Your task to perform on an android device: turn off javascript in the chrome app Image 0: 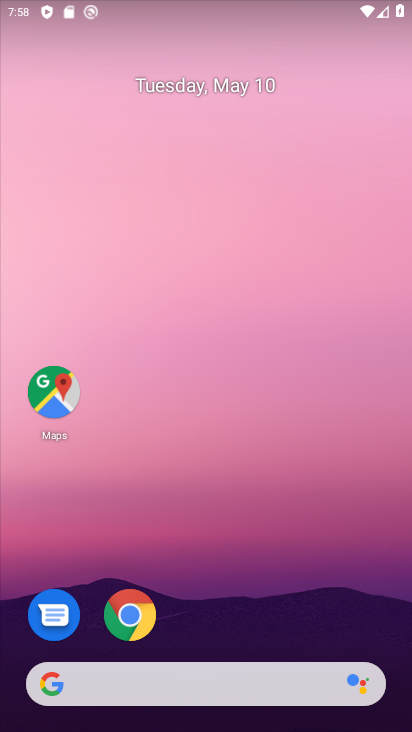
Step 0: click (261, 225)
Your task to perform on an android device: turn off javascript in the chrome app Image 1: 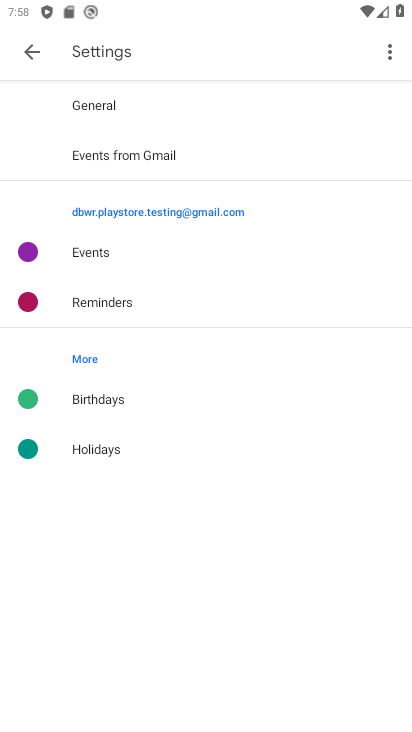
Step 1: press home button
Your task to perform on an android device: turn off javascript in the chrome app Image 2: 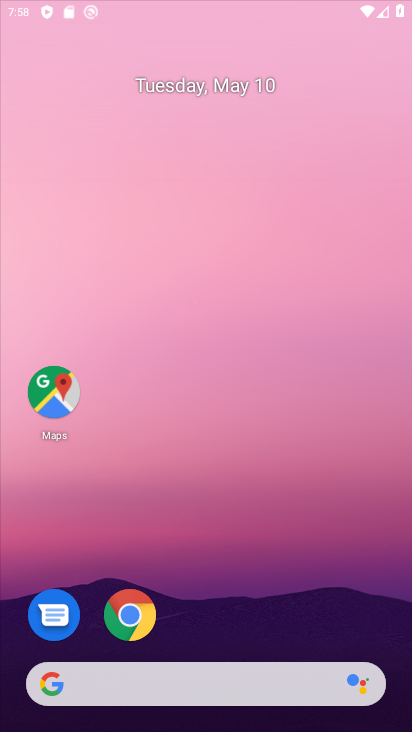
Step 2: drag from (226, 610) to (280, 154)
Your task to perform on an android device: turn off javascript in the chrome app Image 3: 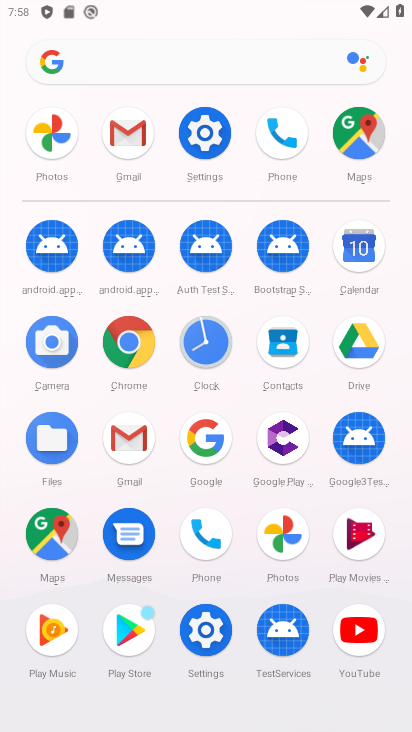
Step 3: click (126, 340)
Your task to perform on an android device: turn off javascript in the chrome app Image 4: 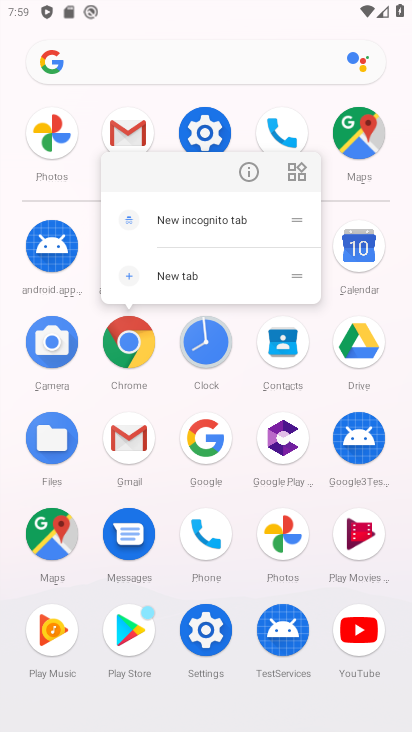
Step 4: click (250, 172)
Your task to perform on an android device: turn off javascript in the chrome app Image 5: 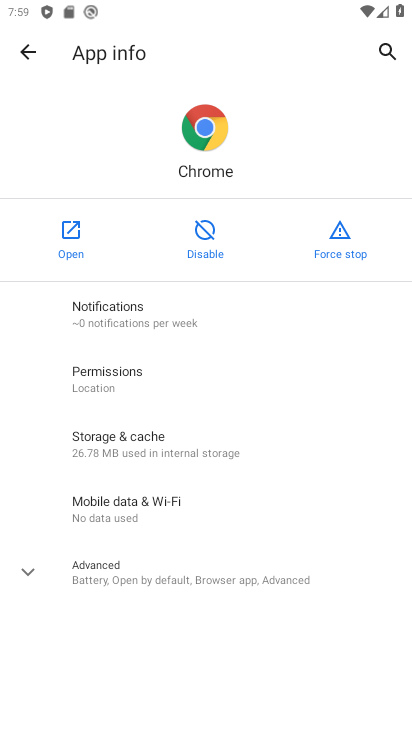
Step 5: click (65, 232)
Your task to perform on an android device: turn off javascript in the chrome app Image 6: 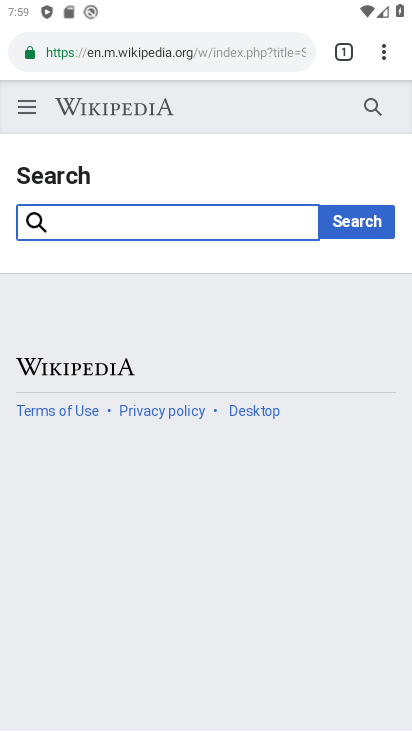
Step 6: drag from (182, 347) to (239, 160)
Your task to perform on an android device: turn off javascript in the chrome app Image 7: 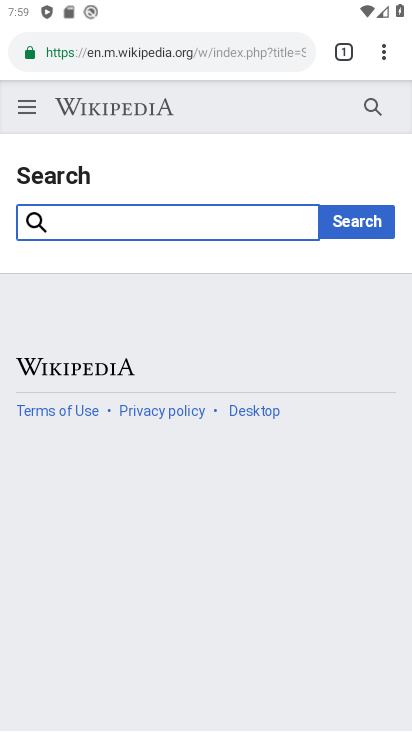
Step 7: press home button
Your task to perform on an android device: turn off javascript in the chrome app Image 8: 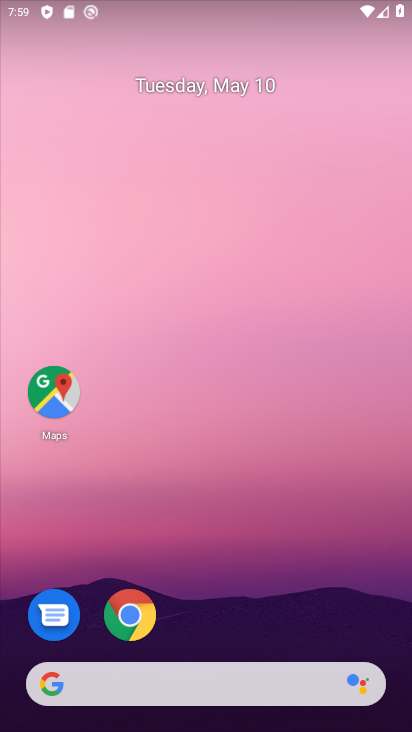
Step 8: click (128, 609)
Your task to perform on an android device: turn off javascript in the chrome app Image 9: 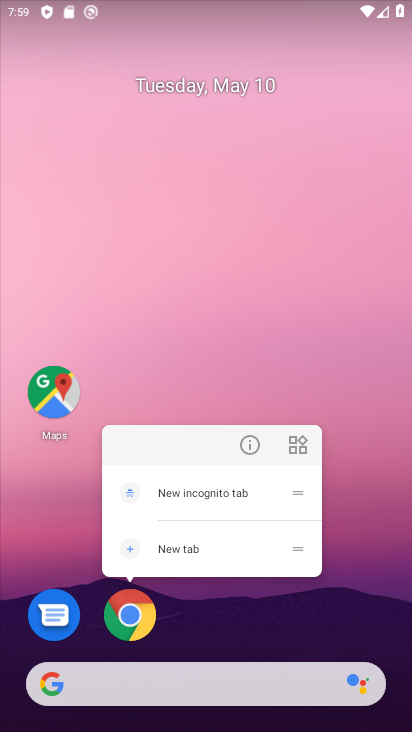
Step 9: click (265, 439)
Your task to perform on an android device: turn off javascript in the chrome app Image 10: 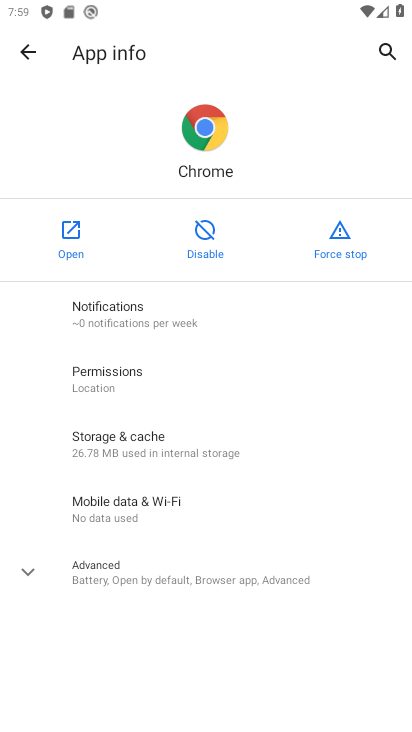
Step 10: click (47, 237)
Your task to perform on an android device: turn off javascript in the chrome app Image 11: 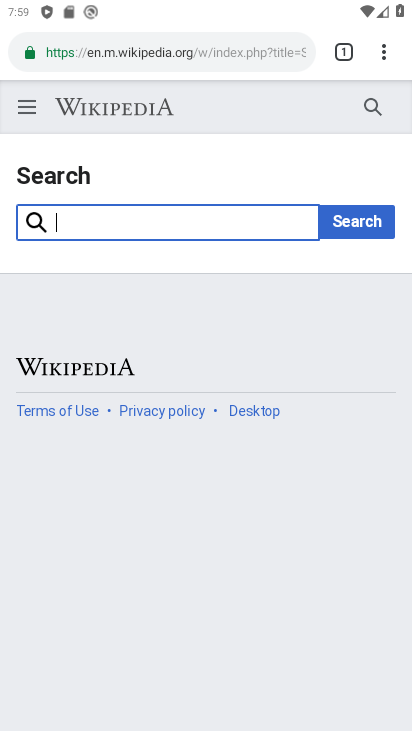
Step 11: drag from (391, 60) to (233, 626)
Your task to perform on an android device: turn off javascript in the chrome app Image 12: 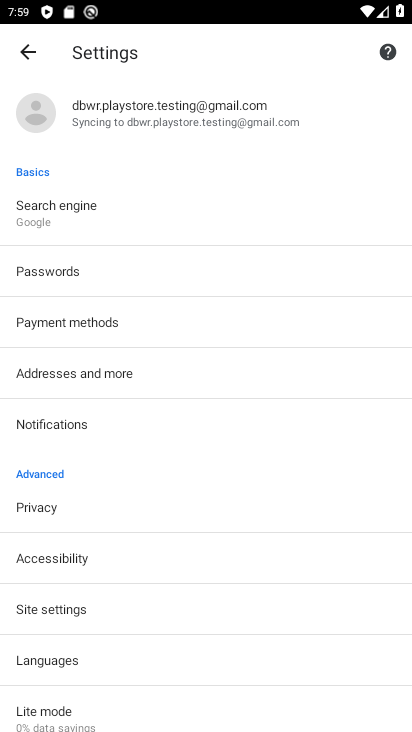
Step 12: click (39, 609)
Your task to perform on an android device: turn off javascript in the chrome app Image 13: 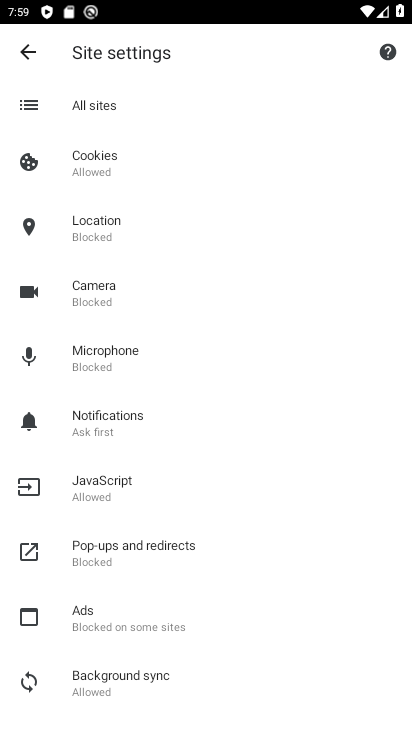
Step 13: click (154, 476)
Your task to perform on an android device: turn off javascript in the chrome app Image 14: 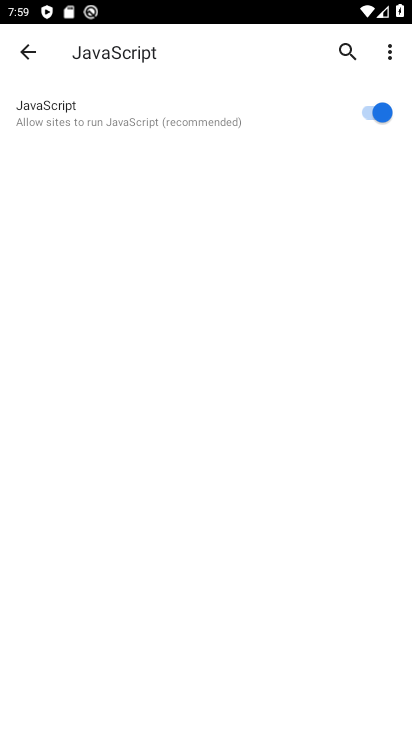
Step 14: click (371, 101)
Your task to perform on an android device: turn off javascript in the chrome app Image 15: 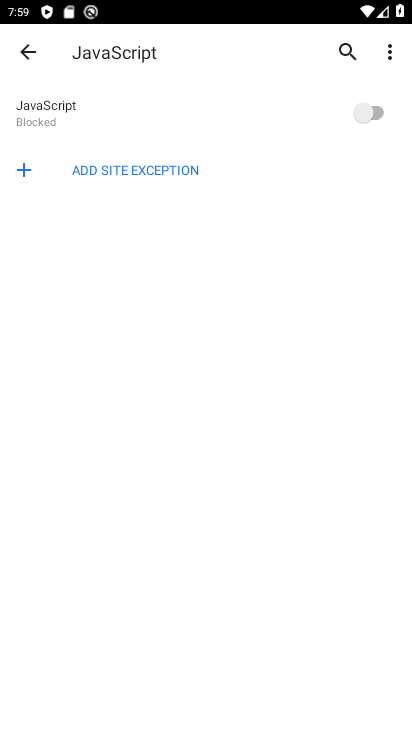
Step 15: task complete